Your task to perform on an android device: Go to Google Image 0: 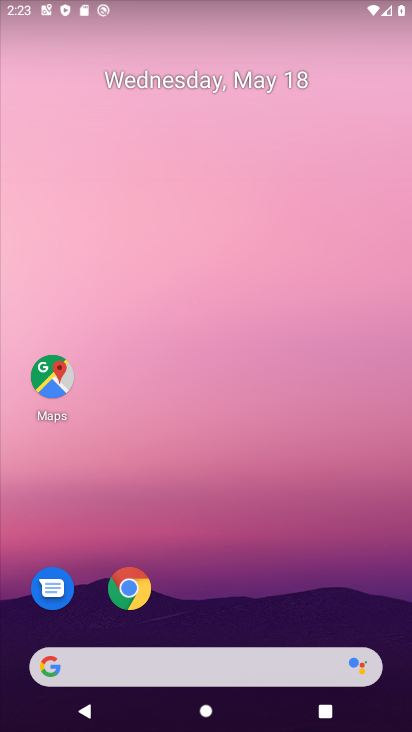
Step 0: drag from (385, 564) to (388, 167)
Your task to perform on an android device: Go to Google Image 1: 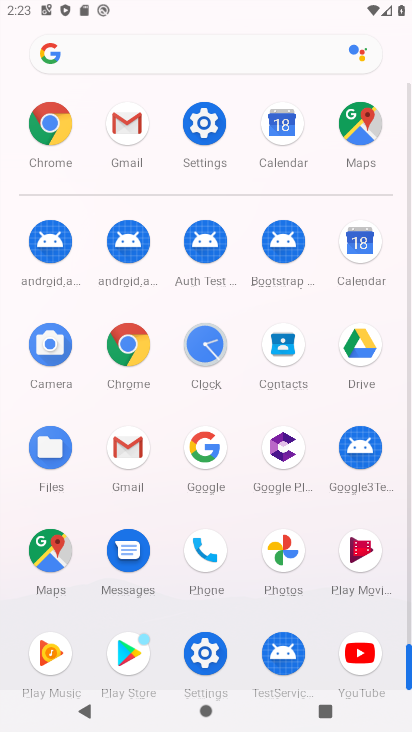
Step 1: click (215, 457)
Your task to perform on an android device: Go to Google Image 2: 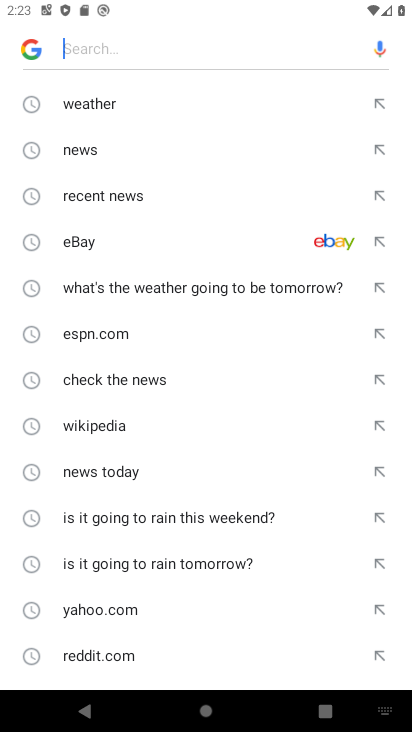
Step 2: task complete